Your task to perform on an android device: turn off data saver in the chrome app Image 0: 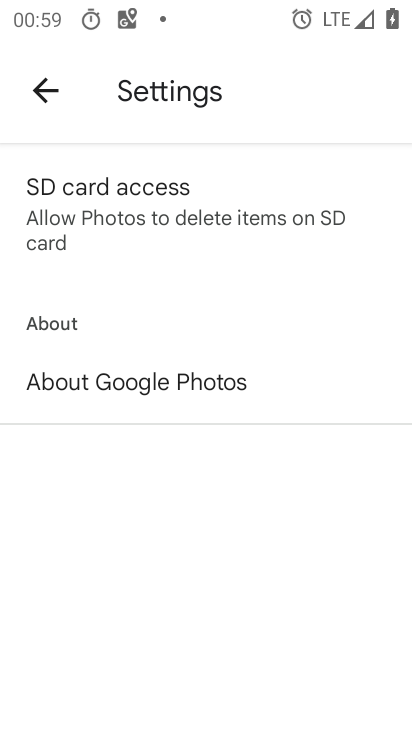
Step 0: press home button
Your task to perform on an android device: turn off data saver in the chrome app Image 1: 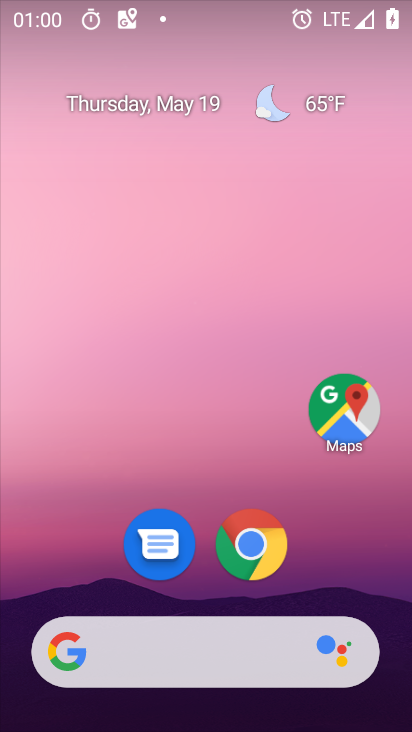
Step 1: drag from (351, 560) to (348, 96)
Your task to perform on an android device: turn off data saver in the chrome app Image 2: 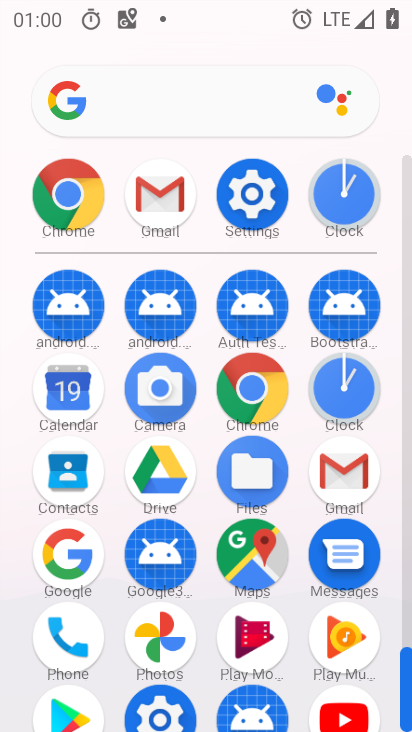
Step 2: click (259, 408)
Your task to perform on an android device: turn off data saver in the chrome app Image 3: 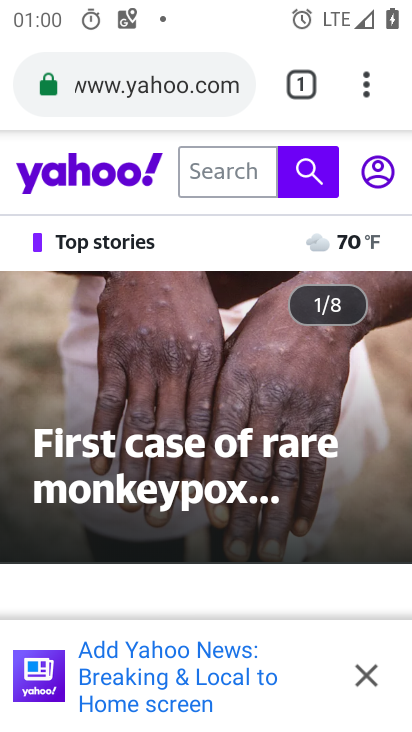
Step 3: click (369, 99)
Your task to perform on an android device: turn off data saver in the chrome app Image 4: 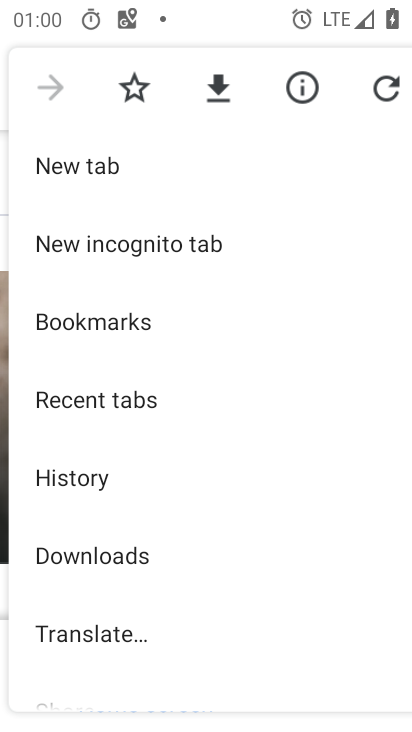
Step 4: drag from (315, 518) to (316, 364)
Your task to perform on an android device: turn off data saver in the chrome app Image 5: 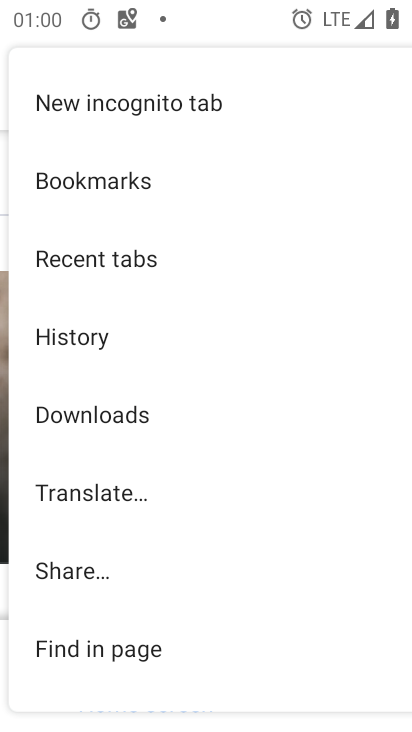
Step 5: drag from (309, 582) to (304, 434)
Your task to perform on an android device: turn off data saver in the chrome app Image 6: 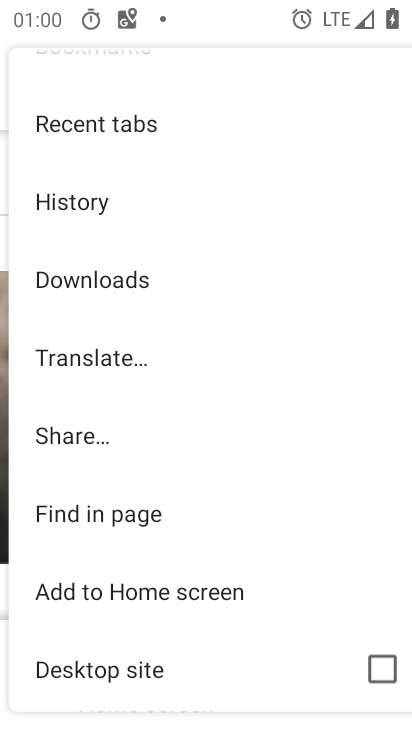
Step 6: drag from (280, 633) to (280, 457)
Your task to perform on an android device: turn off data saver in the chrome app Image 7: 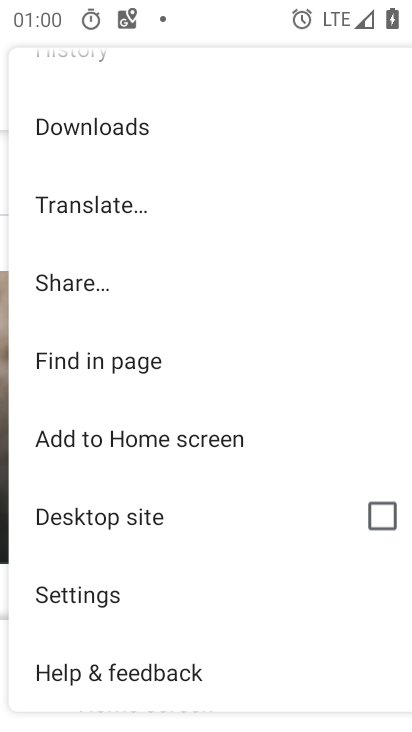
Step 7: drag from (263, 633) to (269, 491)
Your task to perform on an android device: turn off data saver in the chrome app Image 8: 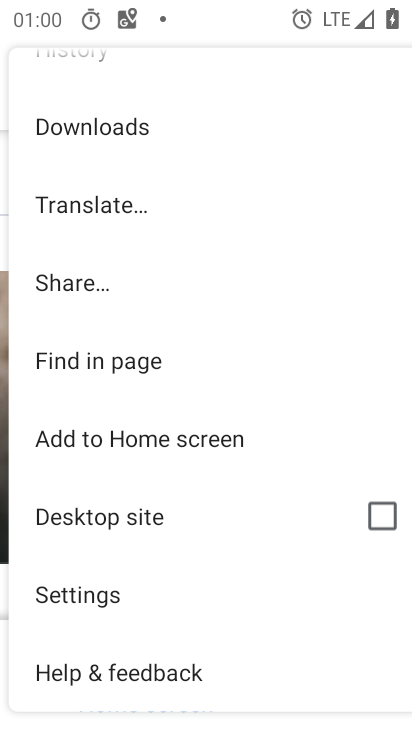
Step 8: click (111, 595)
Your task to perform on an android device: turn off data saver in the chrome app Image 9: 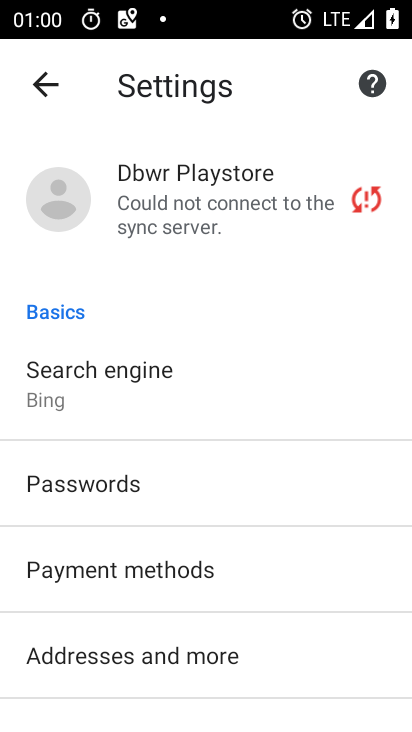
Step 9: drag from (325, 645) to (315, 465)
Your task to perform on an android device: turn off data saver in the chrome app Image 10: 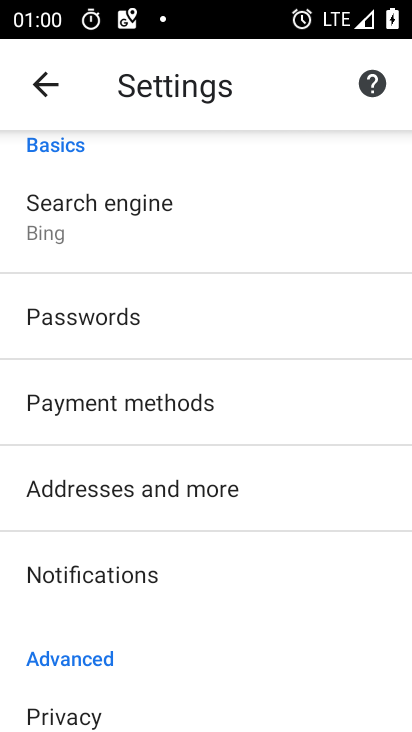
Step 10: drag from (350, 663) to (334, 553)
Your task to perform on an android device: turn off data saver in the chrome app Image 11: 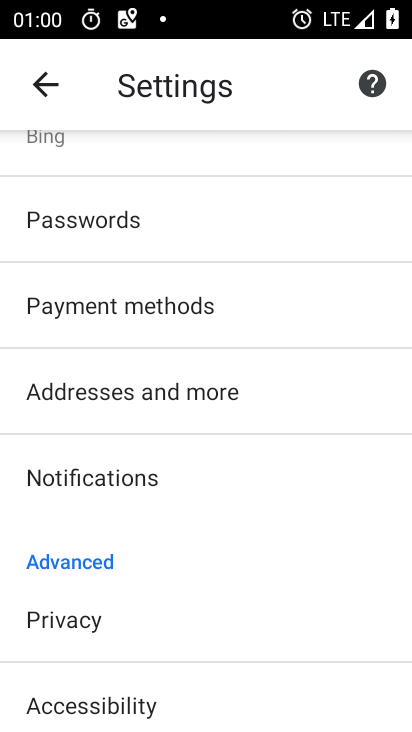
Step 11: drag from (320, 691) to (314, 568)
Your task to perform on an android device: turn off data saver in the chrome app Image 12: 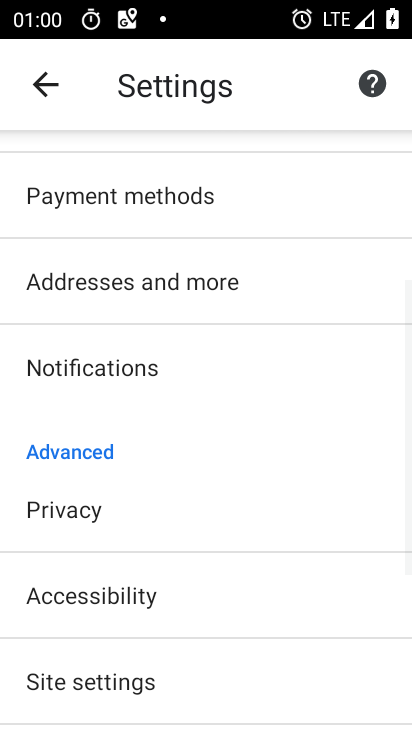
Step 12: drag from (326, 676) to (327, 540)
Your task to perform on an android device: turn off data saver in the chrome app Image 13: 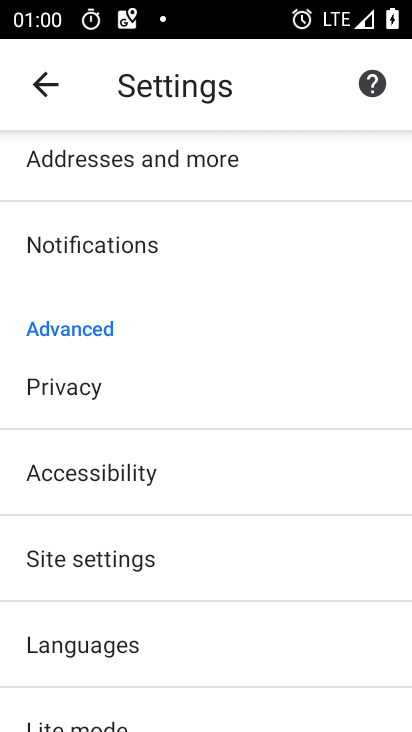
Step 13: drag from (303, 642) to (302, 484)
Your task to perform on an android device: turn off data saver in the chrome app Image 14: 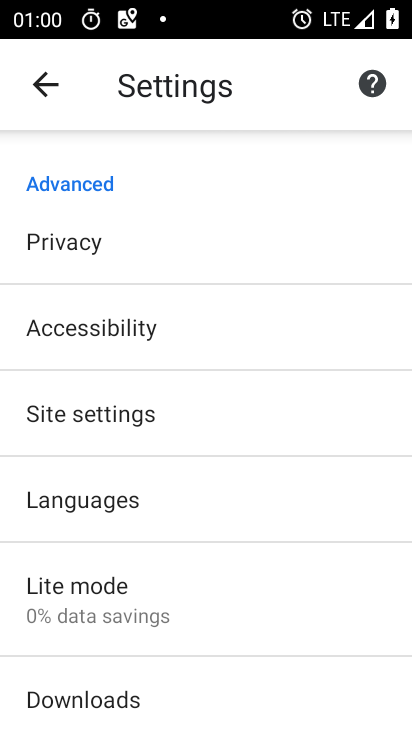
Step 14: drag from (287, 670) to (286, 494)
Your task to perform on an android device: turn off data saver in the chrome app Image 15: 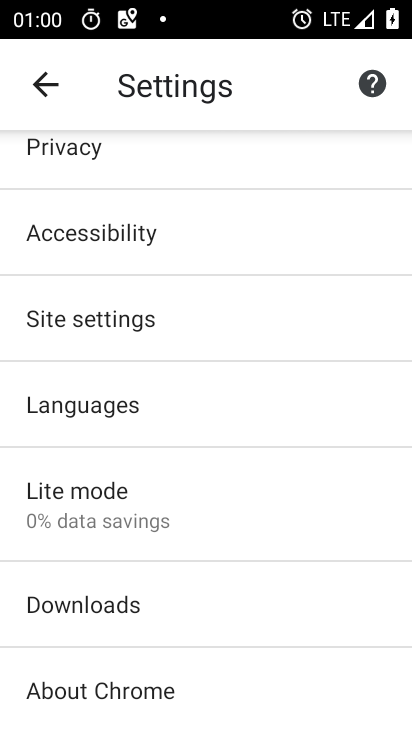
Step 15: drag from (284, 349) to (282, 458)
Your task to perform on an android device: turn off data saver in the chrome app Image 16: 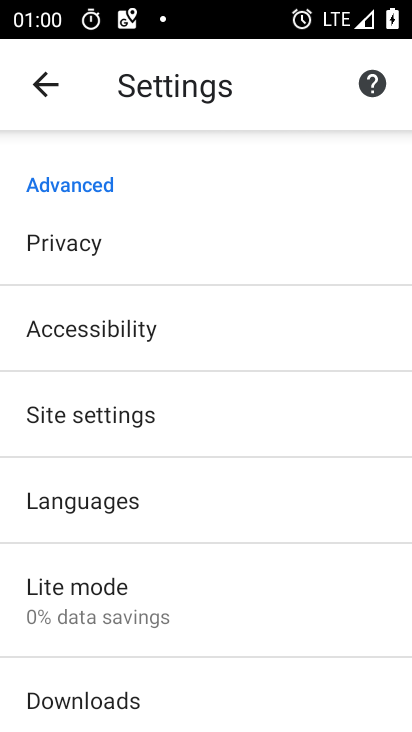
Step 16: drag from (304, 315) to (305, 446)
Your task to perform on an android device: turn off data saver in the chrome app Image 17: 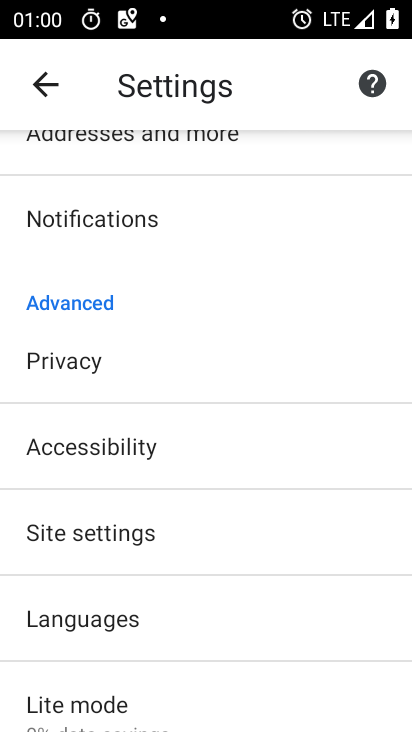
Step 17: drag from (303, 355) to (303, 503)
Your task to perform on an android device: turn off data saver in the chrome app Image 18: 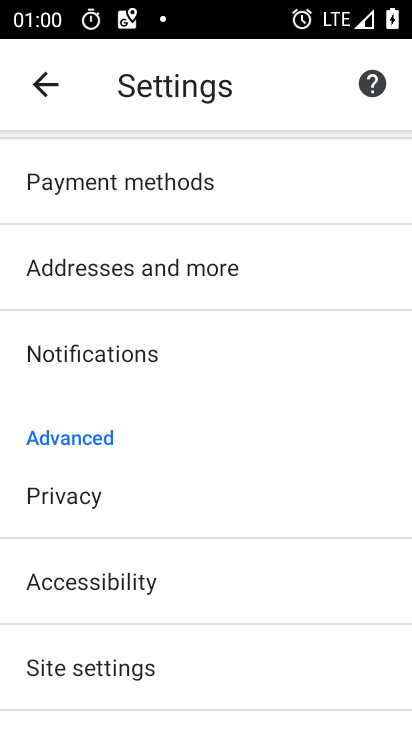
Step 18: drag from (267, 638) to (270, 517)
Your task to perform on an android device: turn off data saver in the chrome app Image 19: 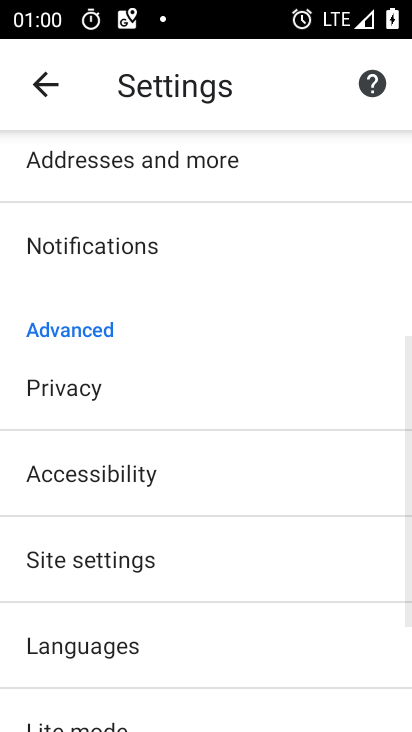
Step 19: drag from (259, 649) to (264, 462)
Your task to perform on an android device: turn off data saver in the chrome app Image 20: 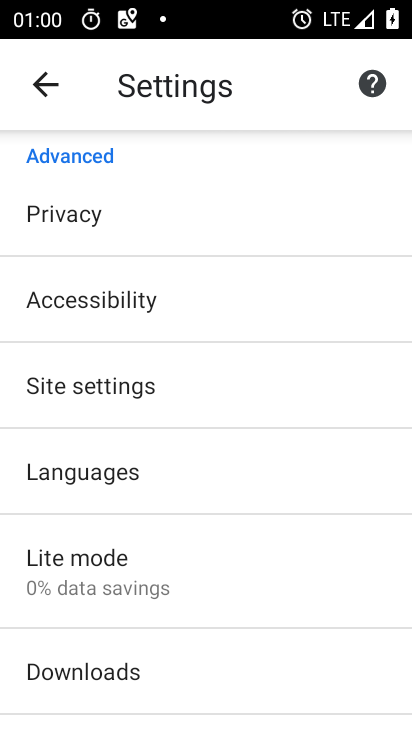
Step 20: click (136, 581)
Your task to perform on an android device: turn off data saver in the chrome app Image 21: 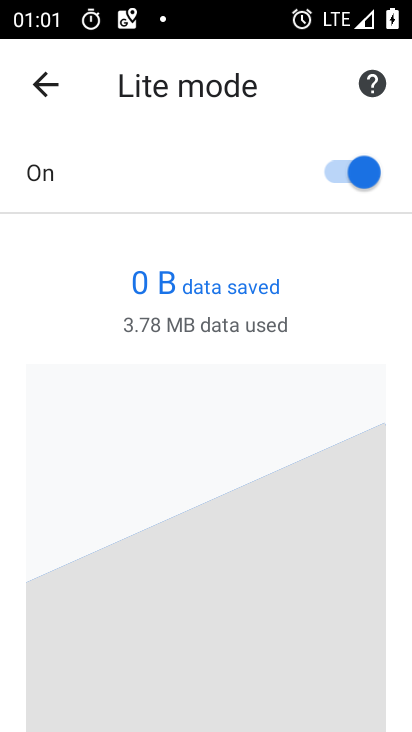
Step 21: click (350, 182)
Your task to perform on an android device: turn off data saver in the chrome app Image 22: 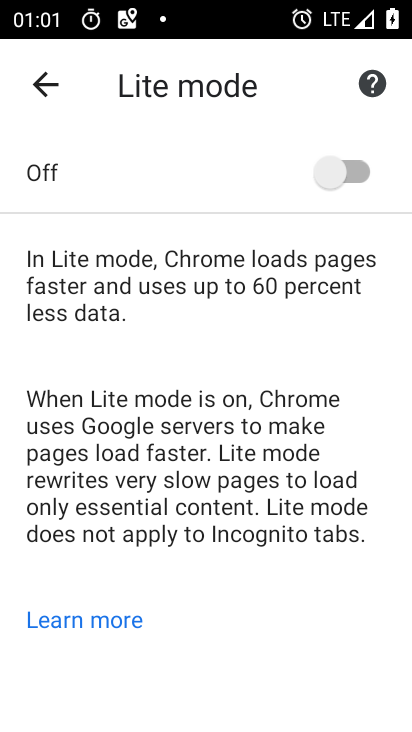
Step 22: task complete